Your task to perform on an android device: install app "Google Find My Device" Image 0: 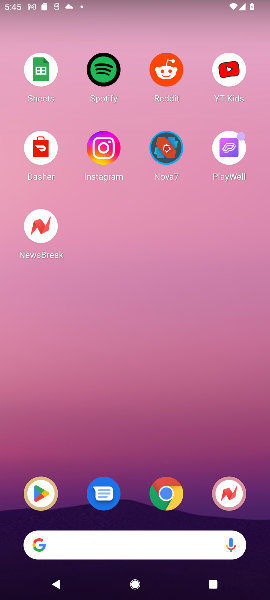
Step 0: drag from (163, 570) to (162, 241)
Your task to perform on an android device: install app "Google Find My Device" Image 1: 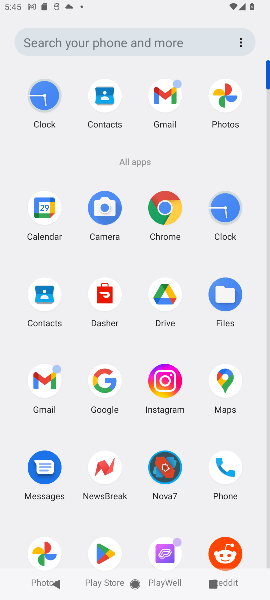
Step 1: drag from (195, 452) to (187, 194)
Your task to perform on an android device: install app "Google Find My Device" Image 2: 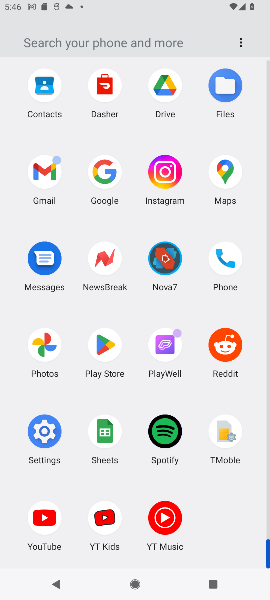
Step 2: click (102, 345)
Your task to perform on an android device: install app "Google Find My Device" Image 3: 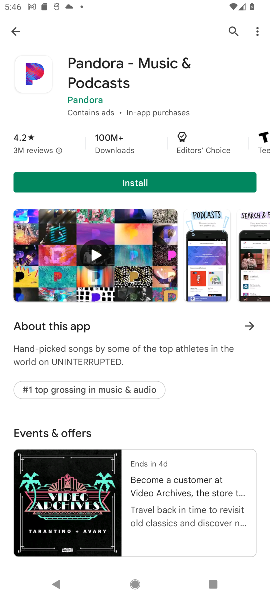
Step 3: click (233, 28)
Your task to perform on an android device: install app "Google Find My Device" Image 4: 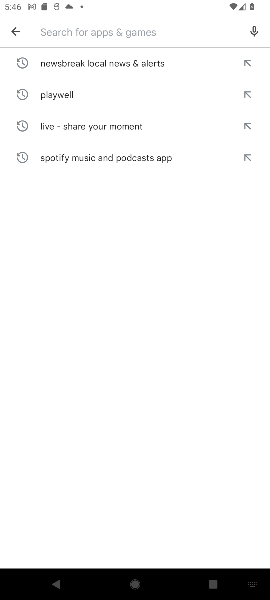
Step 4: type "Google Find MY Device"
Your task to perform on an android device: install app "Google Find My Device" Image 5: 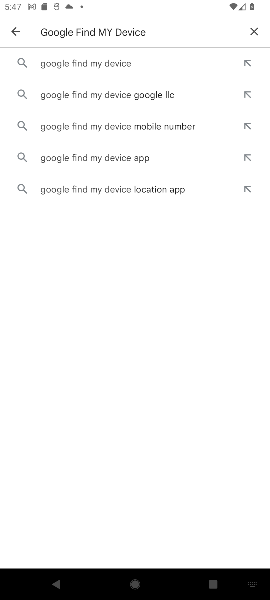
Step 5: click (128, 66)
Your task to perform on an android device: install app "Google Find My Device" Image 6: 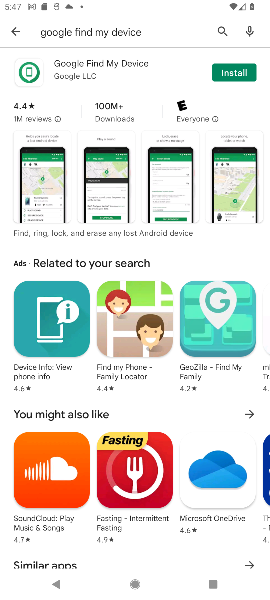
Step 6: click (228, 71)
Your task to perform on an android device: install app "Google Find My Device" Image 7: 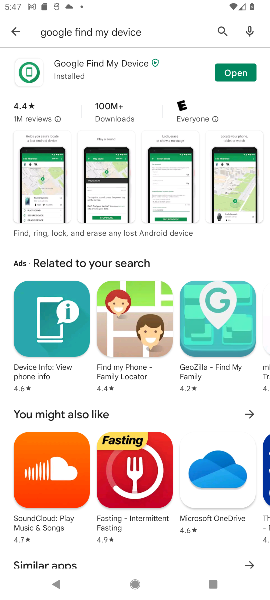
Step 7: task complete